Your task to perform on an android device: Play the last video I watched on Youtube Image 0: 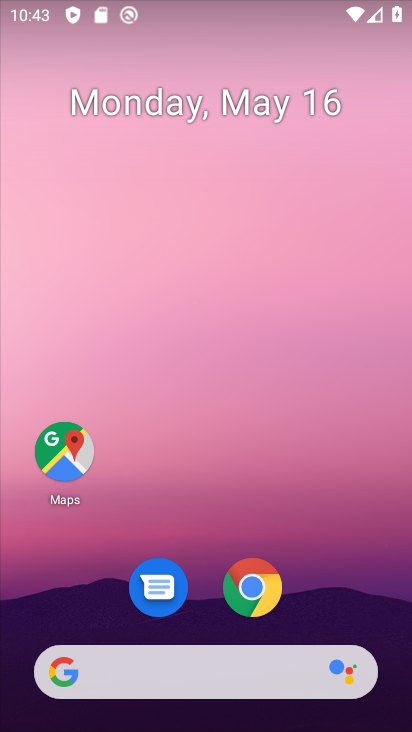
Step 0: drag from (394, 648) to (346, 34)
Your task to perform on an android device: Play the last video I watched on Youtube Image 1: 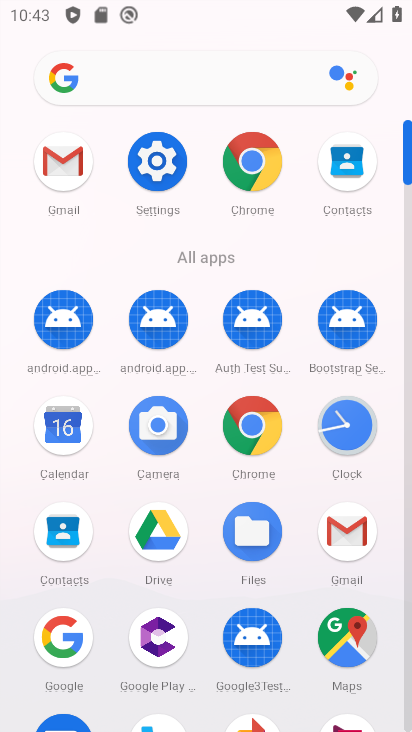
Step 1: drag from (211, 672) to (213, 96)
Your task to perform on an android device: Play the last video I watched on Youtube Image 2: 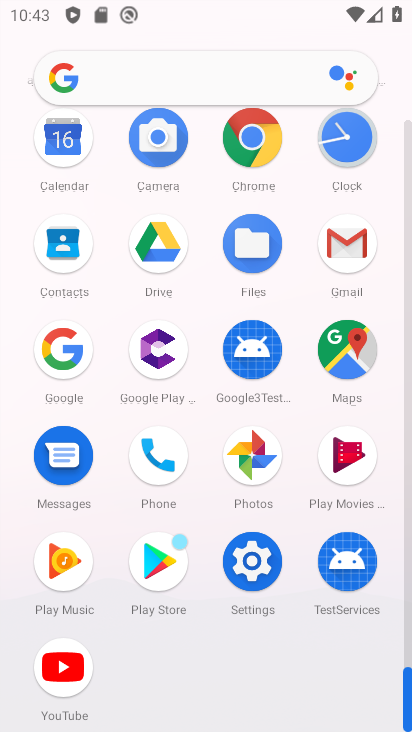
Step 2: click (78, 677)
Your task to perform on an android device: Play the last video I watched on Youtube Image 3: 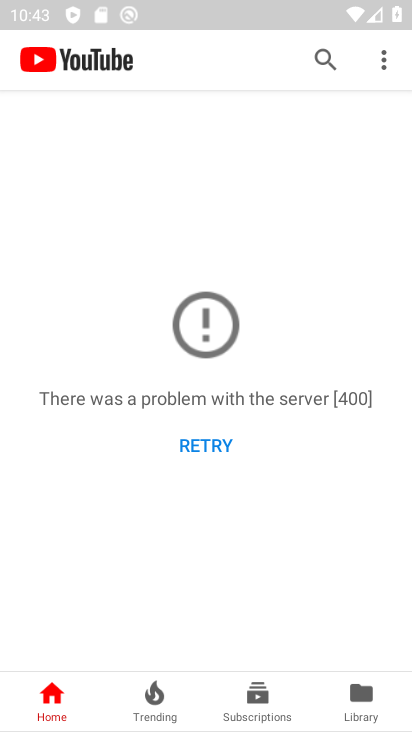
Step 3: click (181, 446)
Your task to perform on an android device: Play the last video I watched on Youtube Image 4: 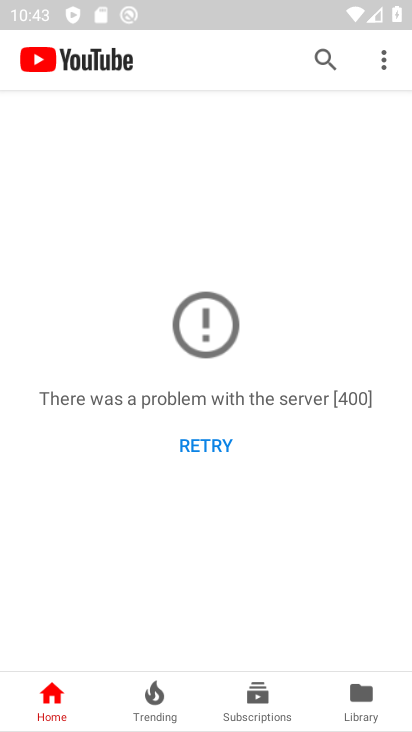
Step 4: click (181, 446)
Your task to perform on an android device: Play the last video I watched on Youtube Image 5: 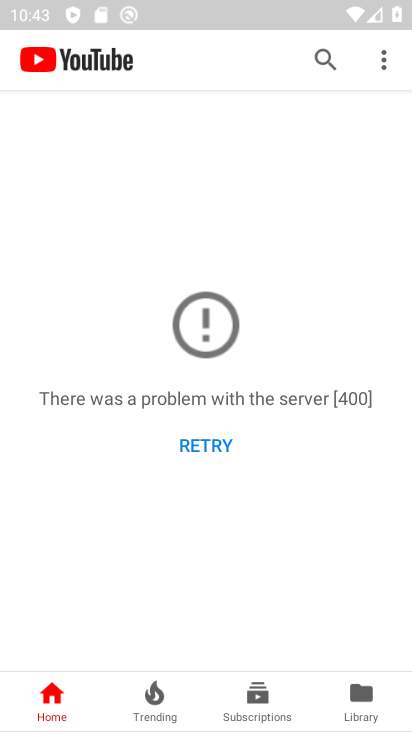
Step 5: click (206, 446)
Your task to perform on an android device: Play the last video I watched on Youtube Image 6: 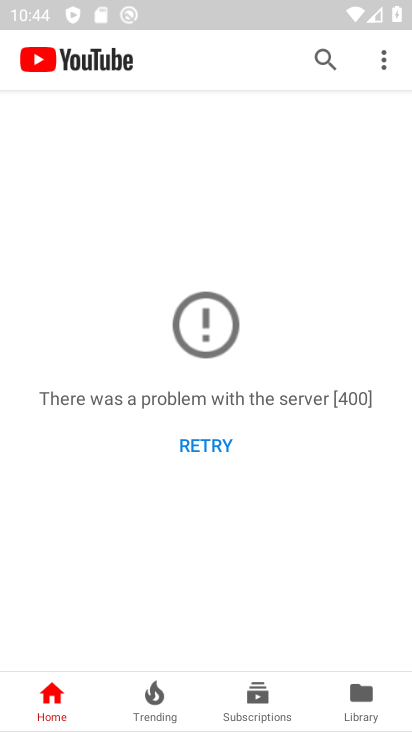
Step 6: task complete